Your task to perform on an android device: delete location history Image 0: 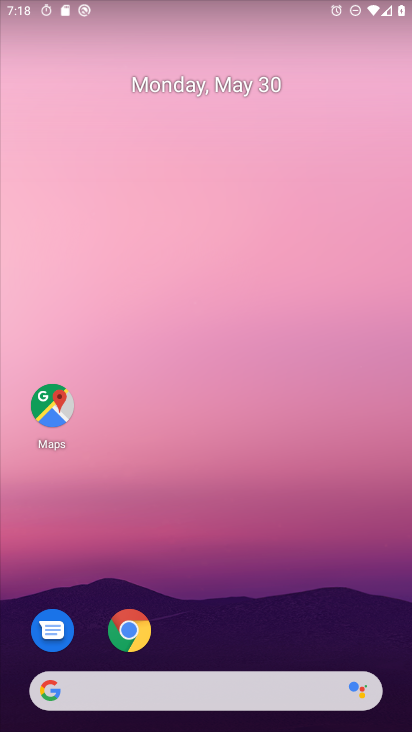
Step 0: drag from (339, 639) to (297, 1)
Your task to perform on an android device: delete location history Image 1: 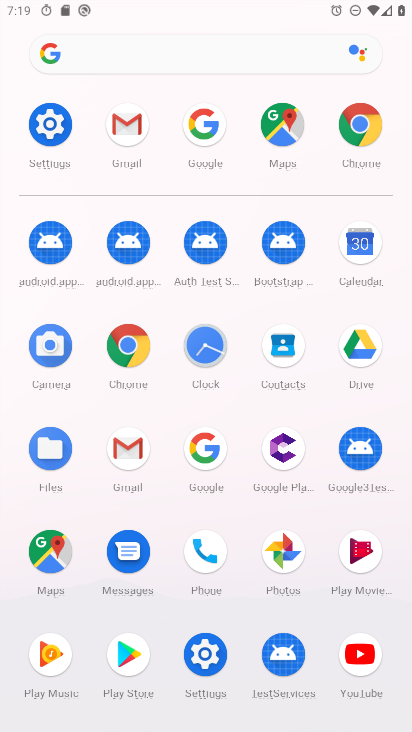
Step 1: click (205, 656)
Your task to perform on an android device: delete location history Image 2: 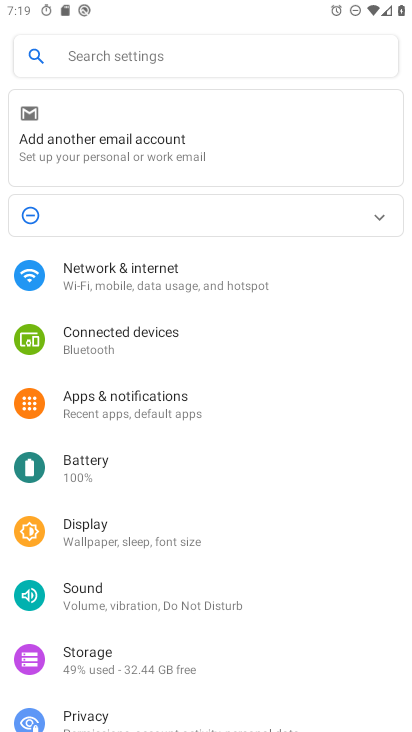
Step 2: drag from (146, 684) to (138, 183)
Your task to perform on an android device: delete location history Image 3: 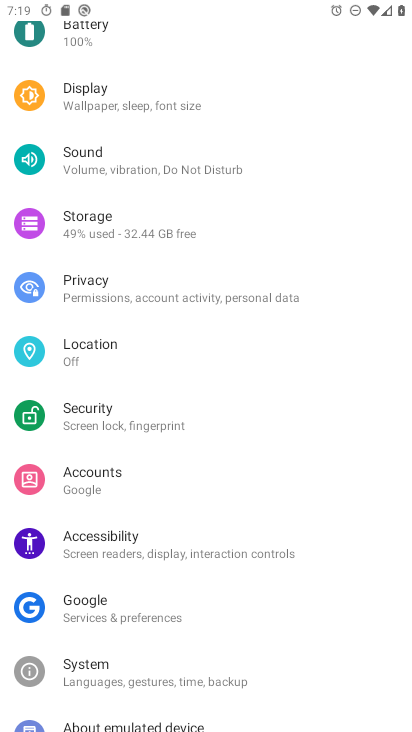
Step 3: click (119, 365)
Your task to perform on an android device: delete location history Image 4: 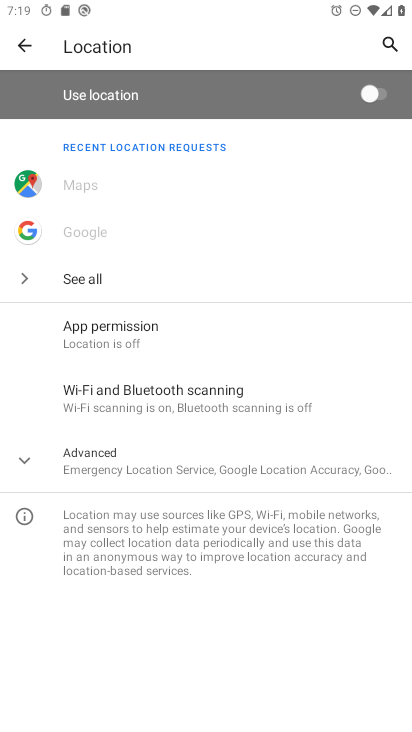
Step 4: click (126, 447)
Your task to perform on an android device: delete location history Image 5: 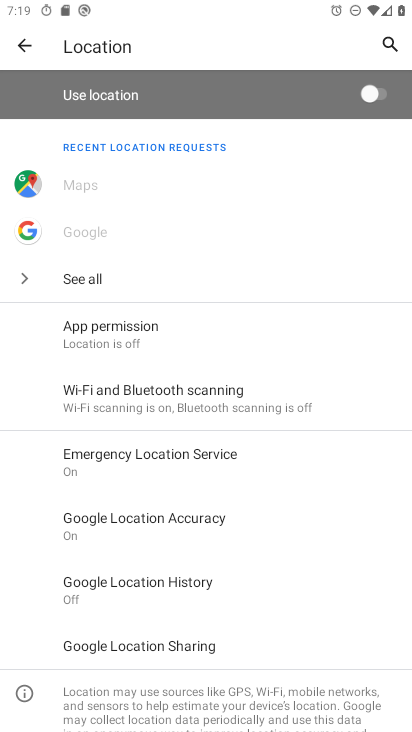
Step 5: click (157, 573)
Your task to perform on an android device: delete location history Image 6: 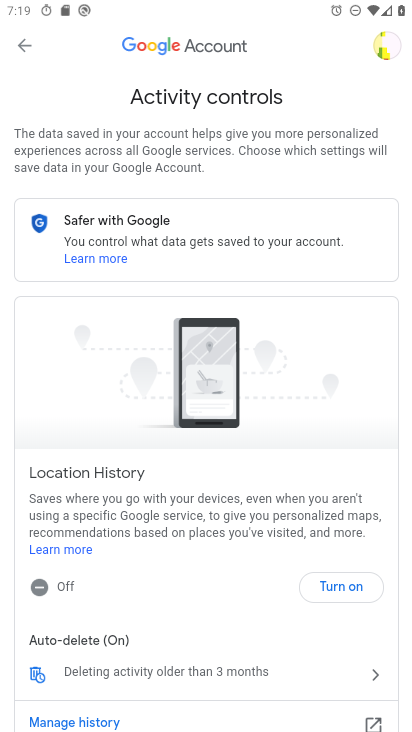
Step 6: click (209, 674)
Your task to perform on an android device: delete location history Image 7: 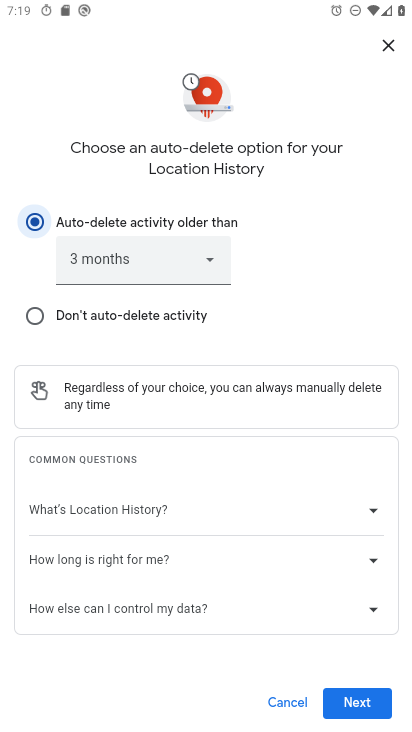
Step 7: click (348, 703)
Your task to perform on an android device: delete location history Image 8: 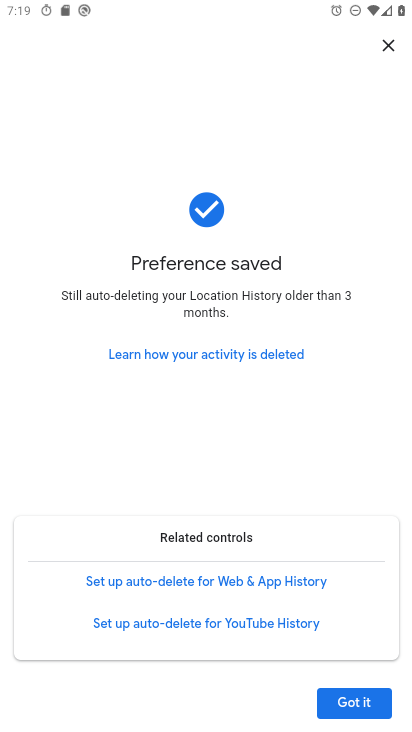
Step 8: click (348, 703)
Your task to perform on an android device: delete location history Image 9: 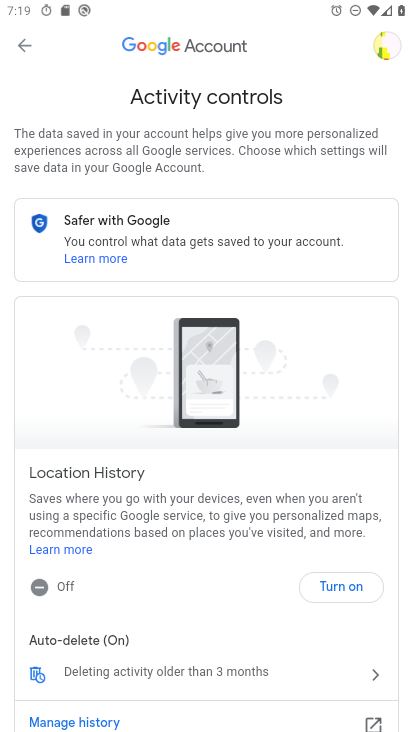
Step 9: task complete